Your task to perform on an android device: Go to privacy settings Image 0: 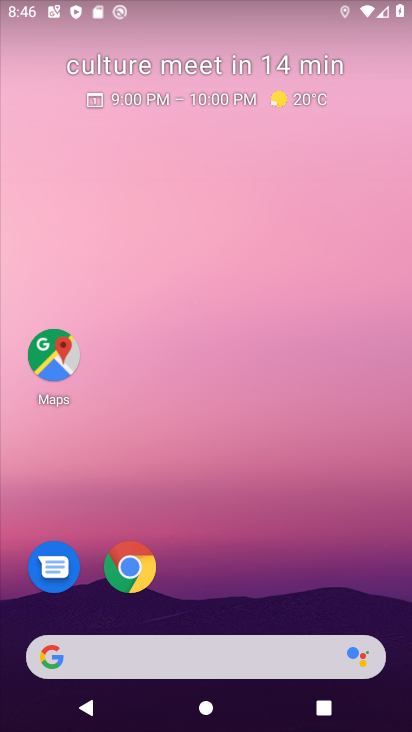
Step 0: drag from (151, 606) to (181, 95)
Your task to perform on an android device: Go to privacy settings Image 1: 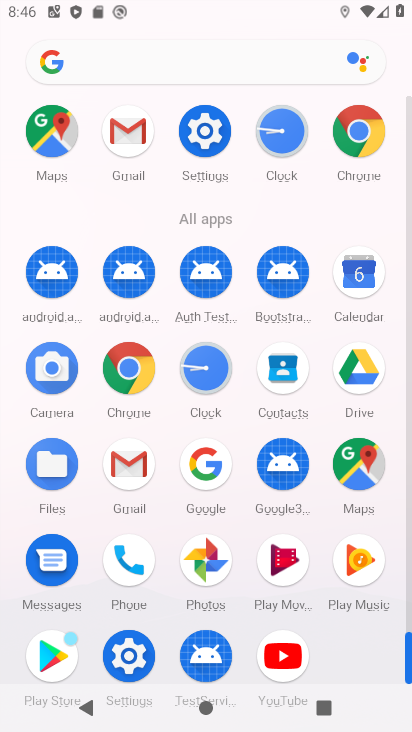
Step 1: click (181, 95)
Your task to perform on an android device: Go to privacy settings Image 2: 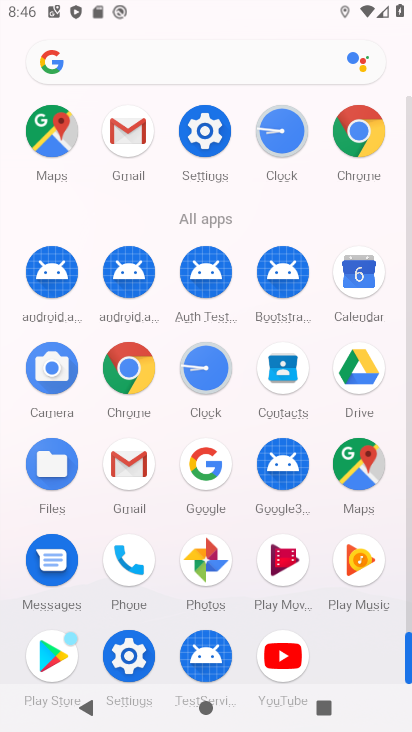
Step 2: click (195, 133)
Your task to perform on an android device: Go to privacy settings Image 3: 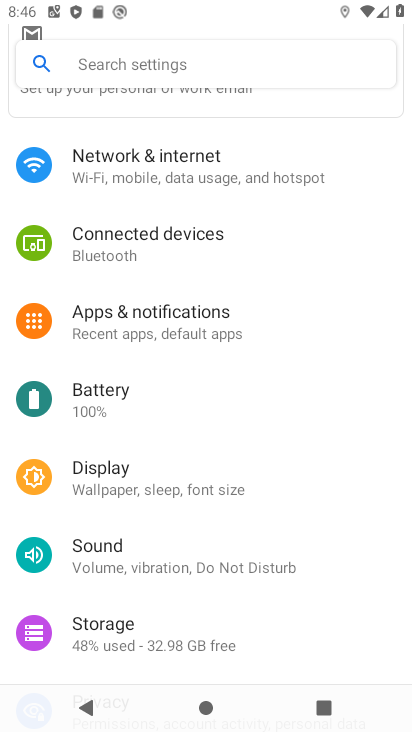
Step 3: drag from (127, 655) to (147, 327)
Your task to perform on an android device: Go to privacy settings Image 4: 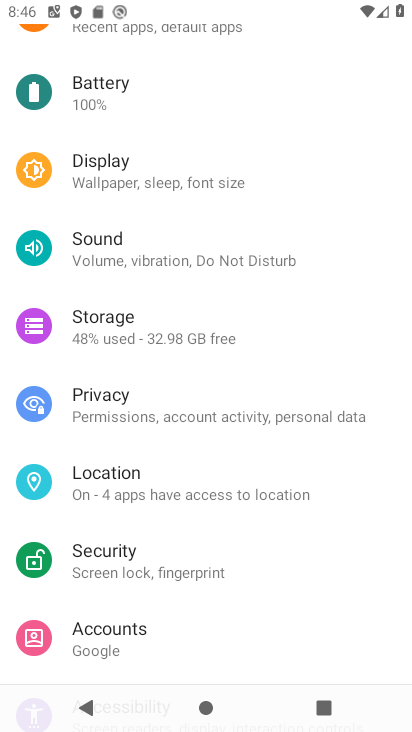
Step 4: click (115, 423)
Your task to perform on an android device: Go to privacy settings Image 5: 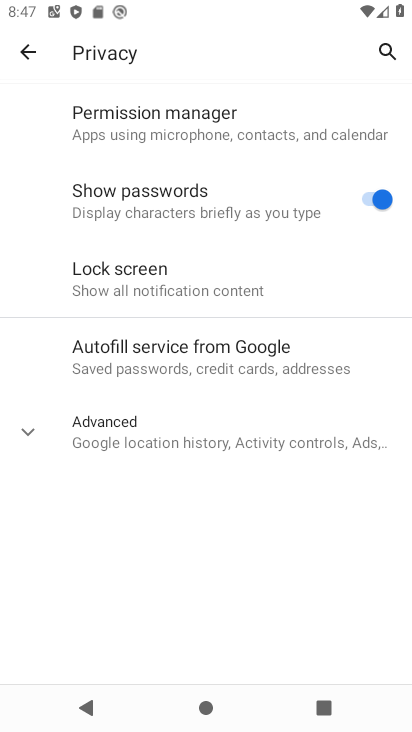
Step 5: task complete